Your task to perform on an android device: find snoozed emails in the gmail app Image 0: 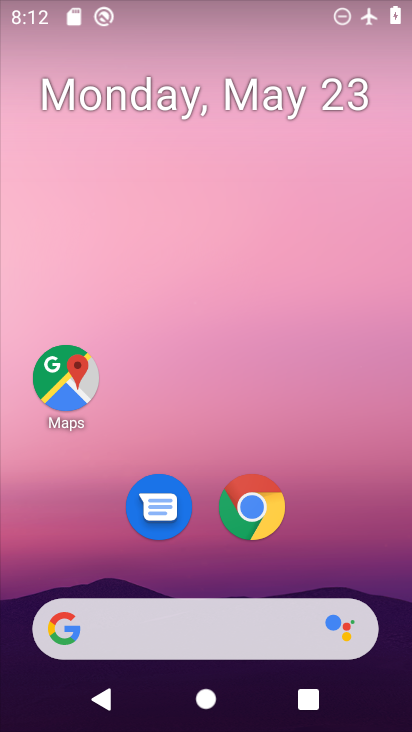
Step 0: drag from (353, 514) to (313, 204)
Your task to perform on an android device: find snoozed emails in the gmail app Image 1: 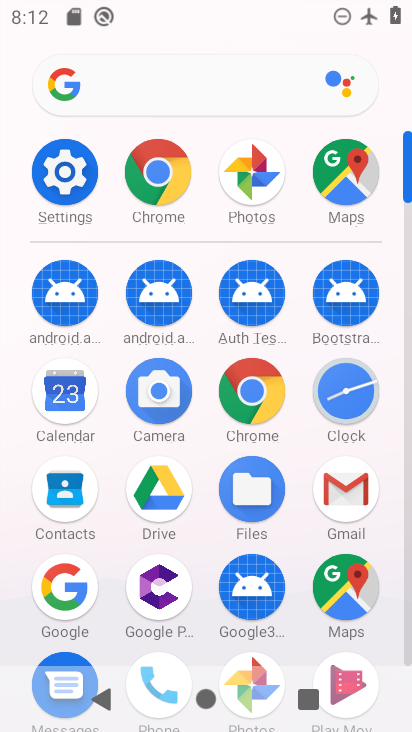
Step 1: click (328, 485)
Your task to perform on an android device: find snoozed emails in the gmail app Image 2: 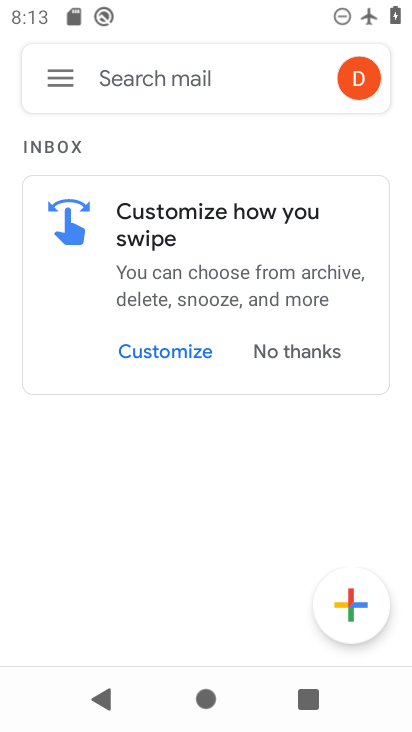
Step 2: click (41, 82)
Your task to perform on an android device: find snoozed emails in the gmail app Image 3: 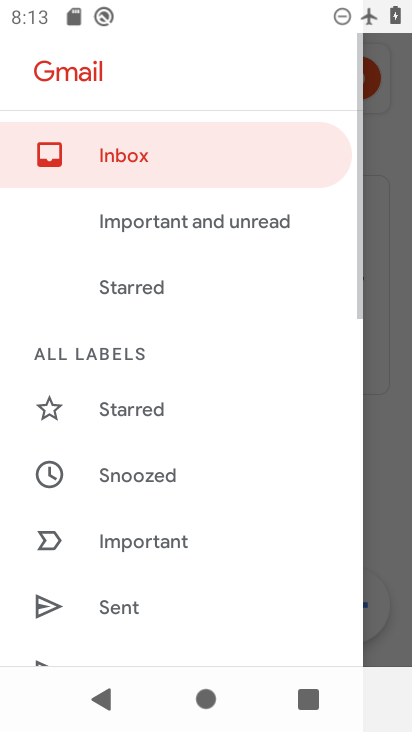
Step 3: click (122, 476)
Your task to perform on an android device: find snoozed emails in the gmail app Image 4: 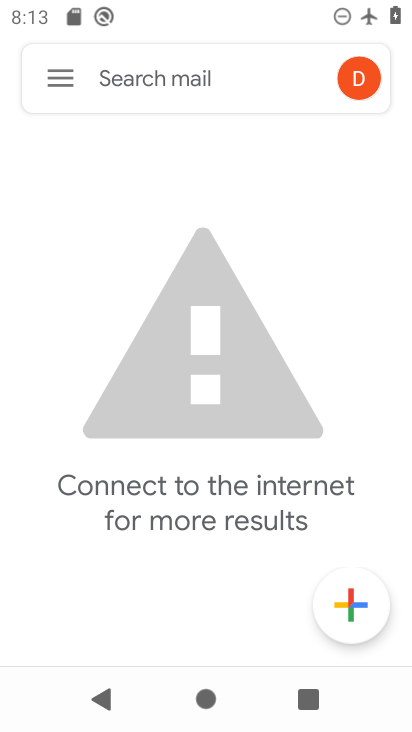
Step 4: task complete